Your task to perform on an android device: change the clock display to show seconds Image 0: 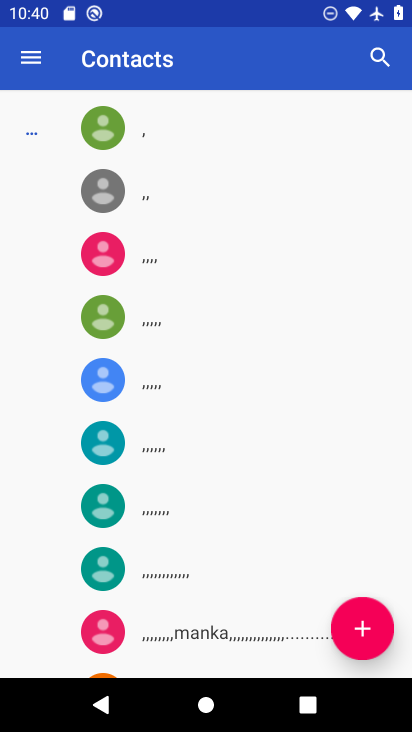
Step 0: press home button
Your task to perform on an android device: change the clock display to show seconds Image 1: 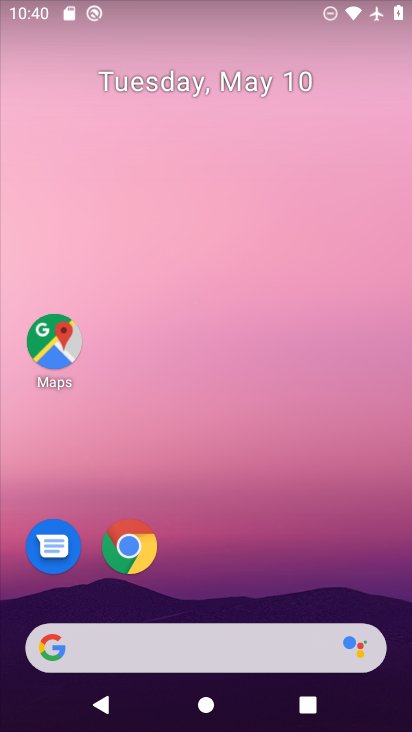
Step 1: drag from (296, 465) to (295, 110)
Your task to perform on an android device: change the clock display to show seconds Image 2: 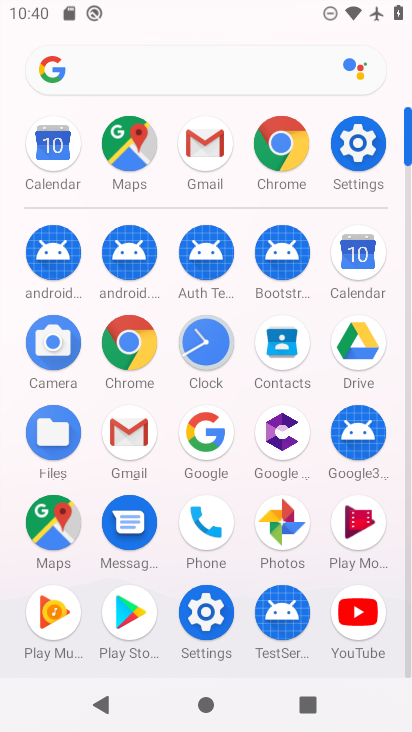
Step 2: click (354, 155)
Your task to perform on an android device: change the clock display to show seconds Image 3: 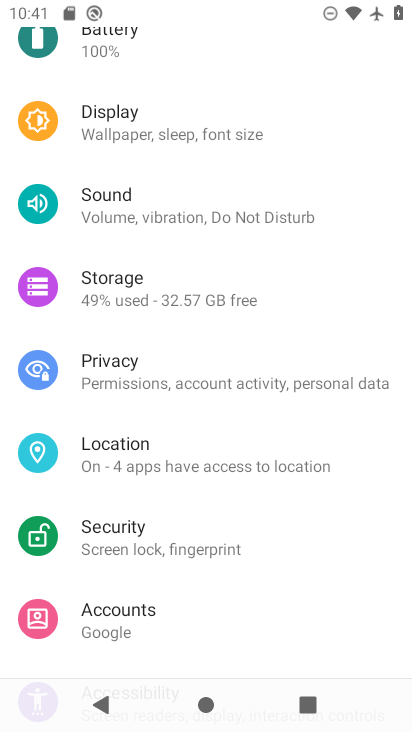
Step 3: drag from (226, 191) to (185, 631)
Your task to perform on an android device: change the clock display to show seconds Image 4: 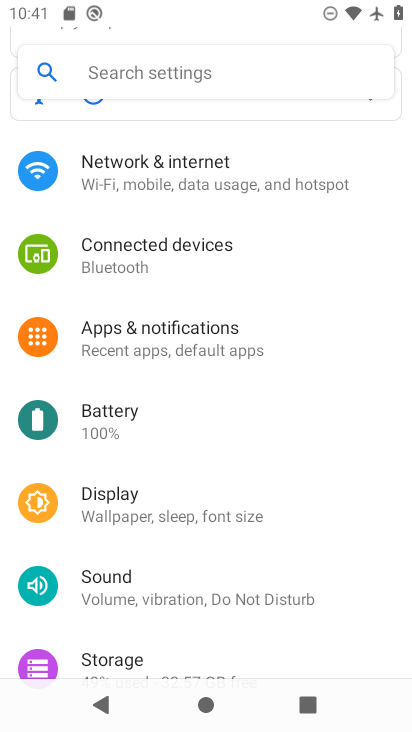
Step 4: click (168, 331)
Your task to perform on an android device: change the clock display to show seconds Image 5: 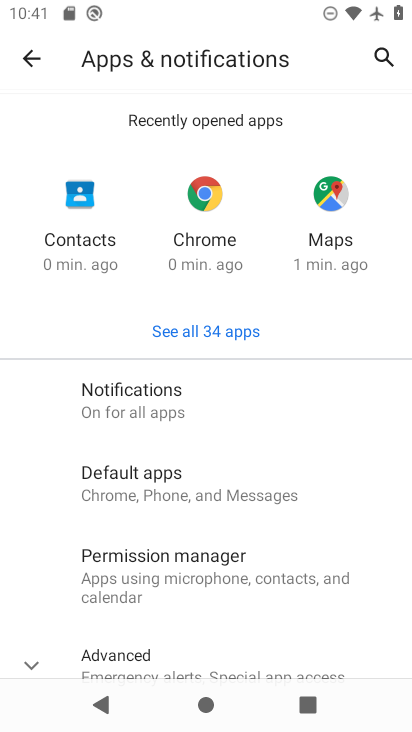
Step 5: click (209, 328)
Your task to perform on an android device: change the clock display to show seconds Image 6: 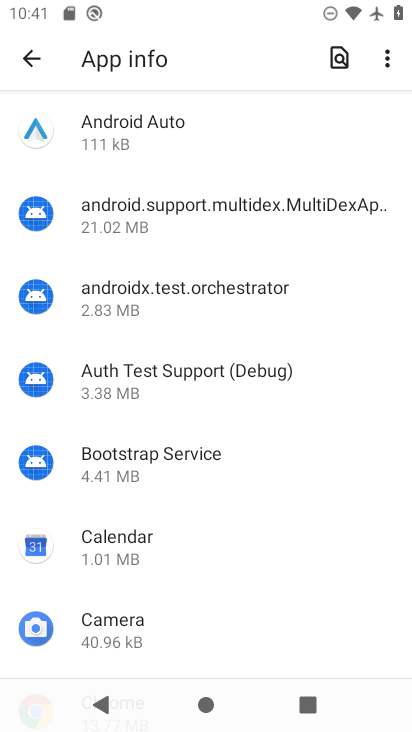
Step 6: drag from (253, 593) to (287, 172)
Your task to perform on an android device: change the clock display to show seconds Image 7: 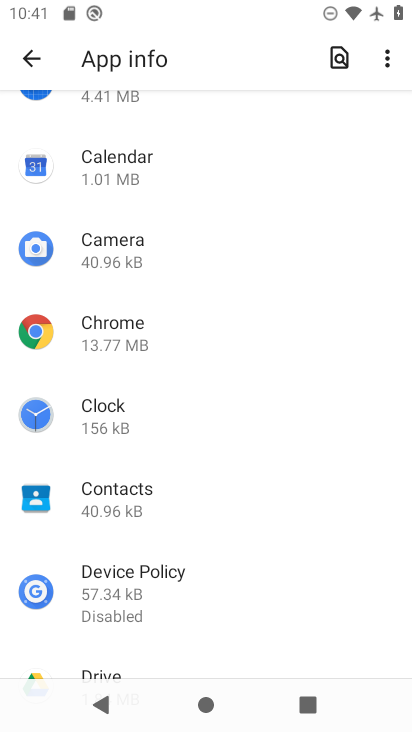
Step 7: drag from (230, 215) to (214, 453)
Your task to perform on an android device: change the clock display to show seconds Image 8: 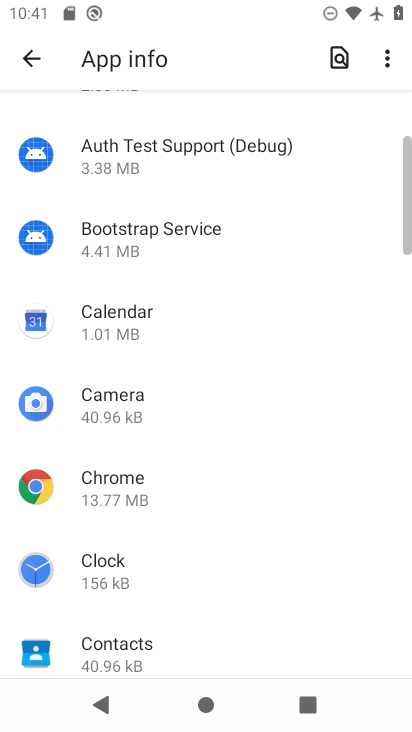
Step 8: drag from (217, 442) to (297, 62)
Your task to perform on an android device: change the clock display to show seconds Image 9: 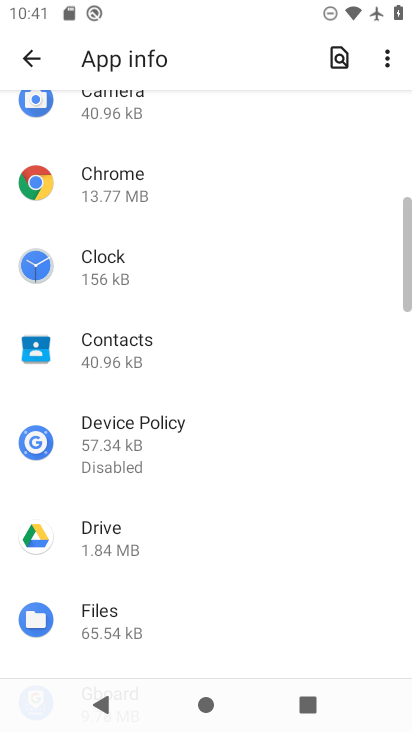
Step 9: drag from (259, 469) to (281, 136)
Your task to perform on an android device: change the clock display to show seconds Image 10: 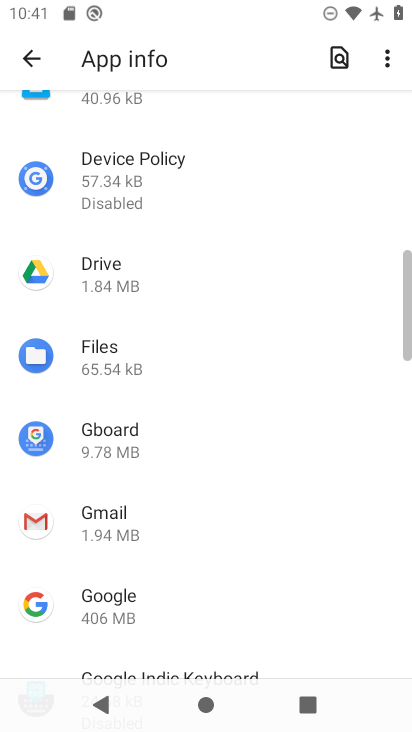
Step 10: drag from (210, 473) to (266, 75)
Your task to perform on an android device: change the clock display to show seconds Image 11: 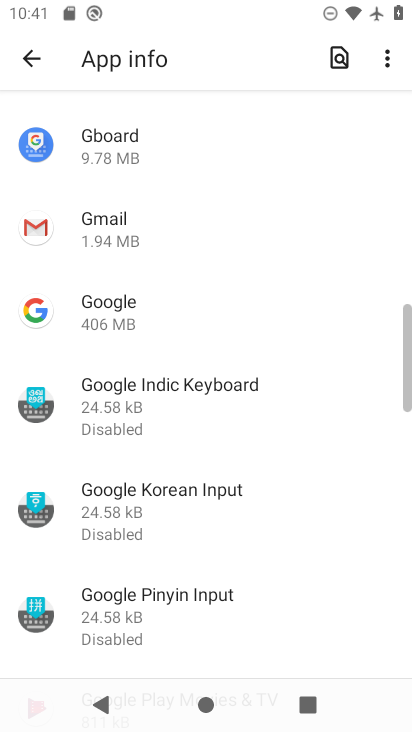
Step 11: drag from (196, 533) to (269, 132)
Your task to perform on an android device: change the clock display to show seconds Image 12: 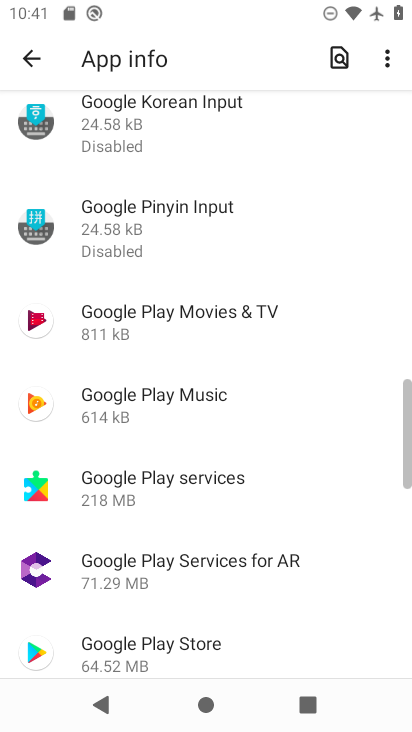
Step 12: drag from (405, 407) to (405, 141)
Your task to perform on an android device: change the clock display to show seconds Image 13: 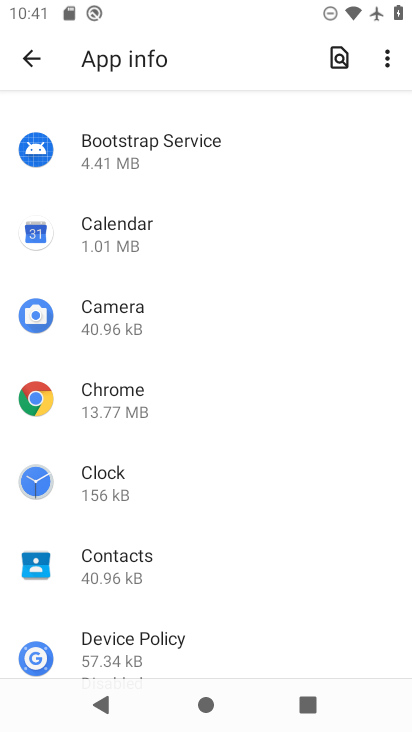
Step 13: click (126, 494)
Your task to perform on an android device: change the clock display to show seconds Image 14: 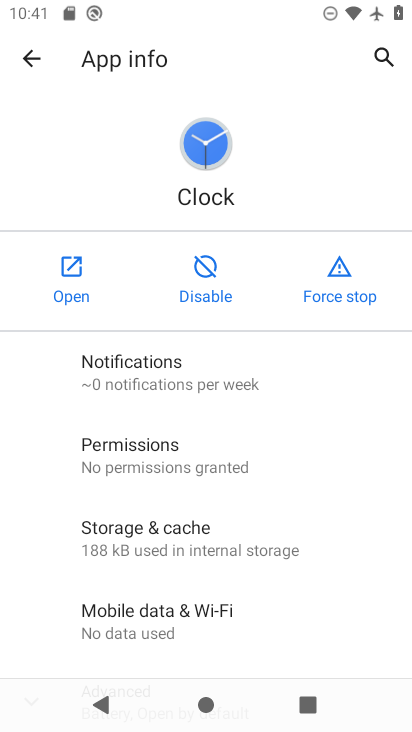
Step 14: drag from (261, 494) to (311, 53)
Your task to perform on an android device: change the clock display to show seconds Image 15: 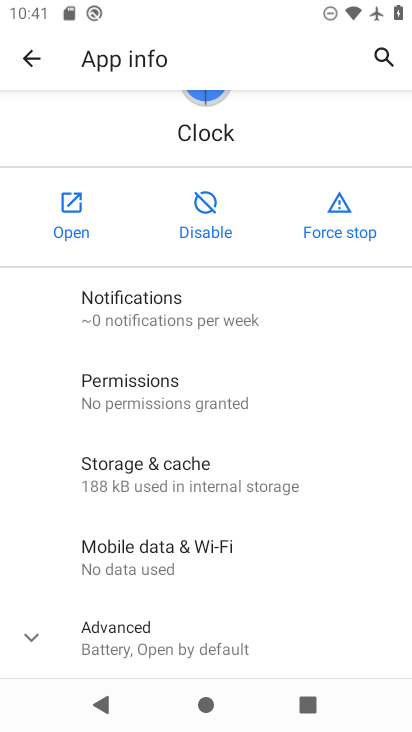
Step 15: click (58, 211)
Your task to perform on an android device: change the clock display to show seconds Image 16: 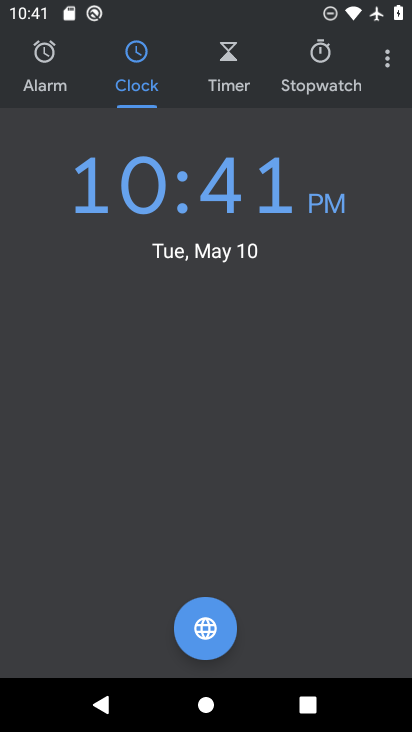
Step 16: click (390, 66)
Your task to perform on an android device: change the clock display to show seconds Image 17: 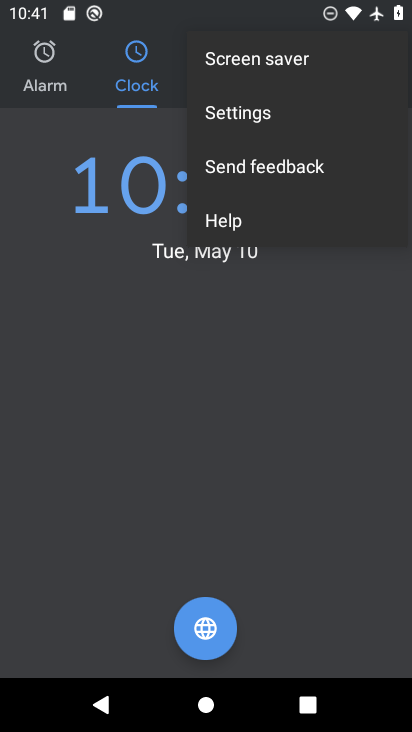
Step 17: click (277, 114)
Your task to perform on an android device: change the clock display to show seconds Image 18: 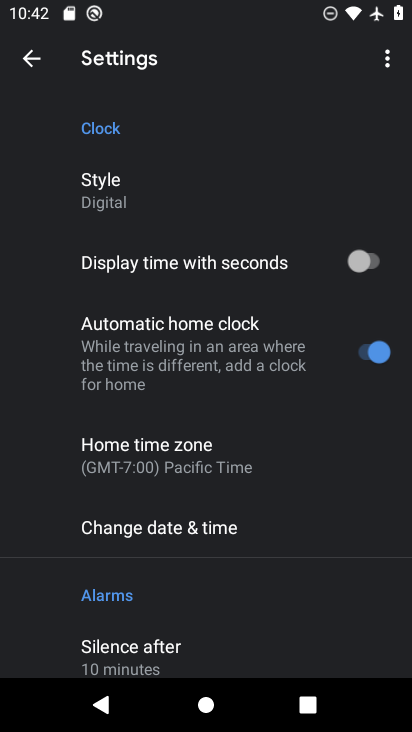
Step 18: click (362, 267)
Your task to perform on an android device: change the clock display to show seconds Image 19: 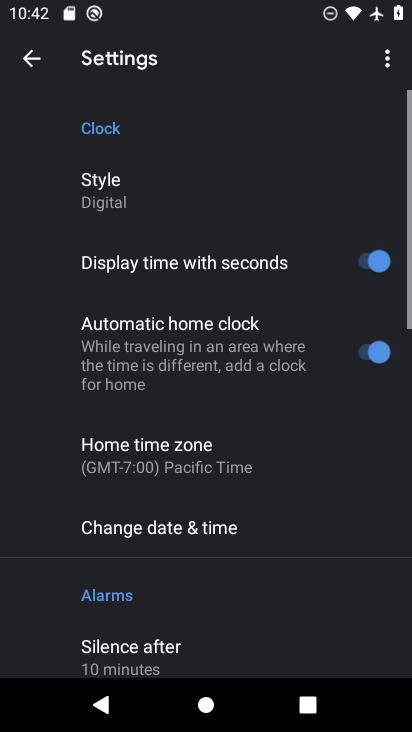
Step 19: task complete